Your task to perform on an android device: Is it going to rain this weekend? Image 0: 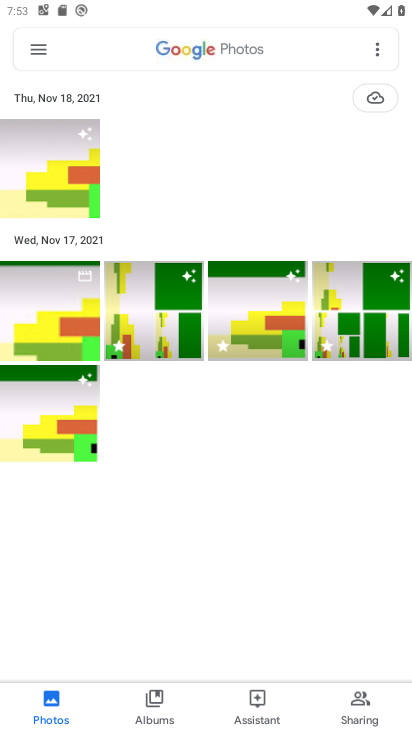
Step 0: press home button
Your task to perform on an android device: Is it going to rain this weekend? Image 1: 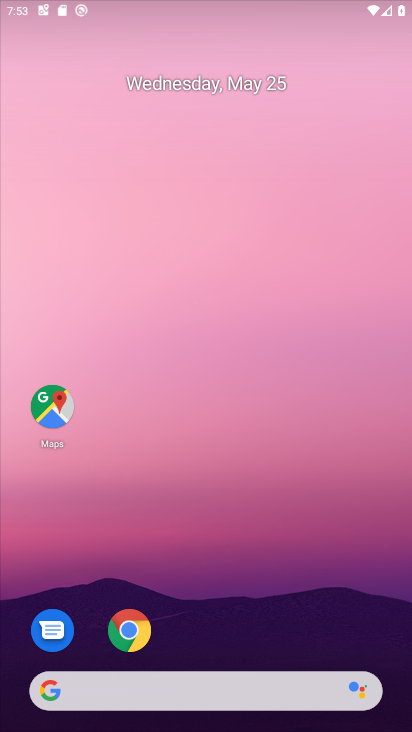
Step 1: drag from (203, 609) to (225, 99)
Your task to perform on an android device: Is it going to rain this weekend? Image 2: 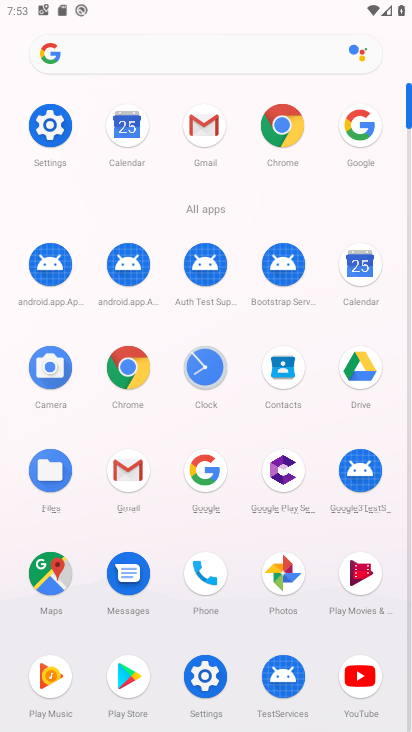
Step 2: click (209, 484)
Your task to perform on an android device: Is it going to rain this weekend? Image 3: 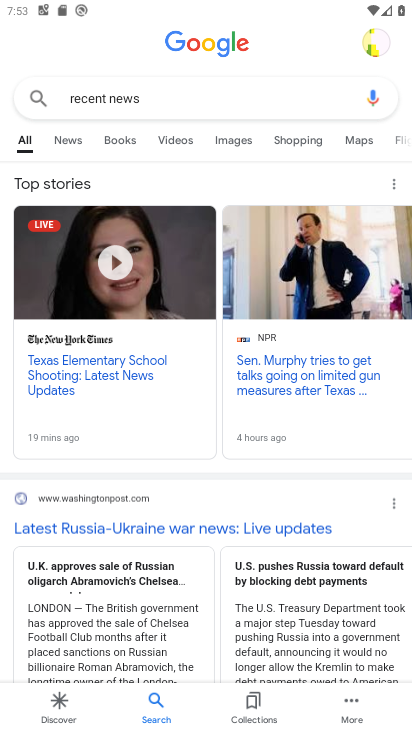
Step 3: click (199, 99)
Your task to perform on an android device: Is it going to rain this weekend? Image 4: 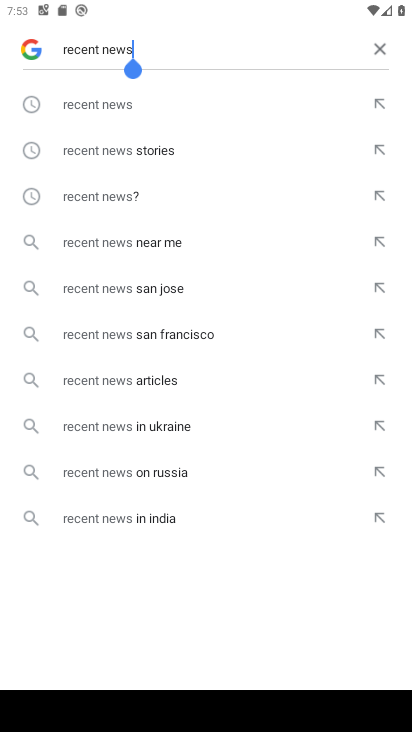
Step 4: click (378, 49)
Your task to perform on an android device: Is it going to rain this weekend? Image 5: 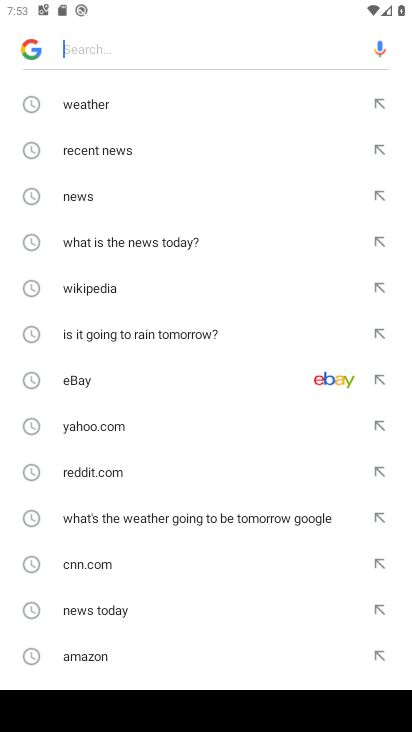
Step 5: drag from (210, 550) to (216, 358)
Your task to perform on an android device: Is it going to rain this weekend? Image 6: 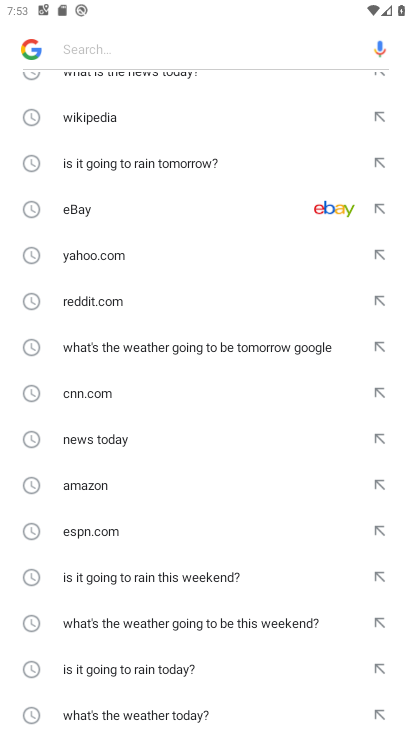
Step 6: click (99, 576)
Your task to perform on an android device: Is it going to rain this weekend? Image 7: 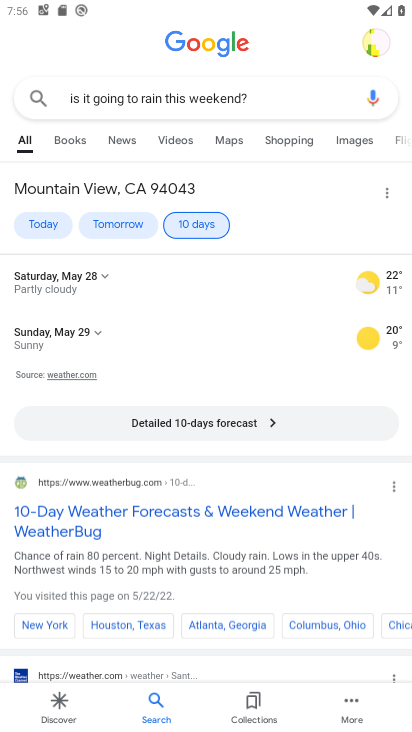
Step 7: task complete